Your task to perform on an android device: Open Google Image 0: 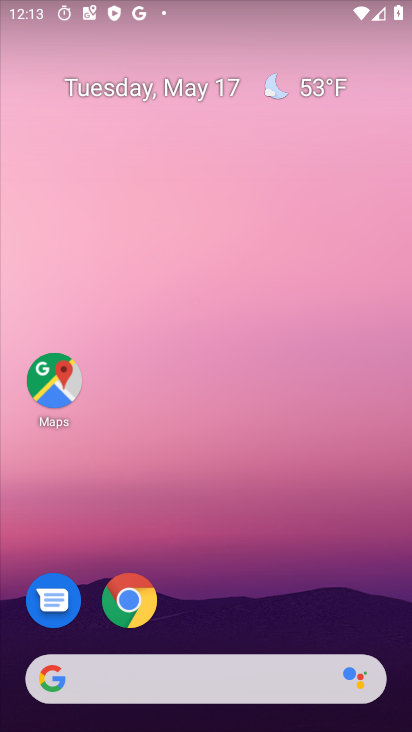
Step 0: drag from (284, 616) to (325, 0)
Your task to perform on an android device: Open Google Image 1: 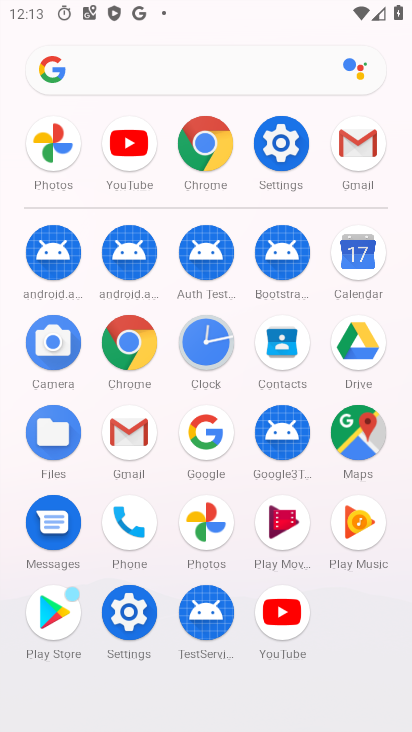
Step 1: click (208, 441)
Your task to perform on an android device: Open Google Image 2: 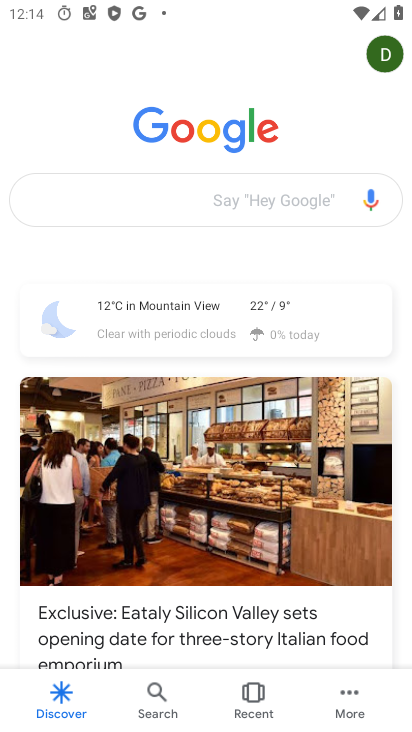
Step 2: task complete